Your task to perform on an android device: delete the emails in spam in the gmail app Image 0: 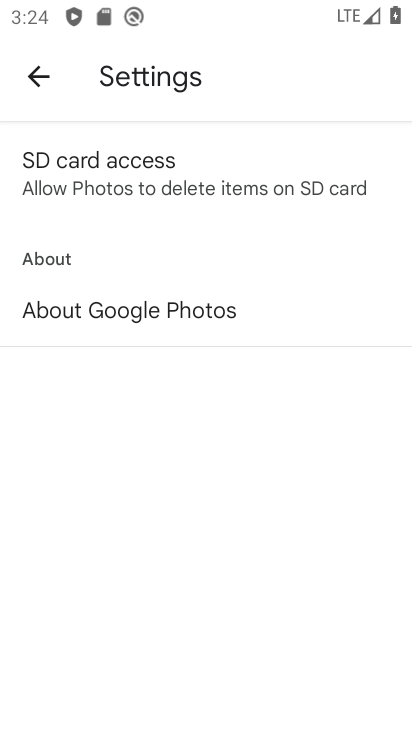
Step 0: press home button
Your task to perform on an android device: delete the emails in spam in the gmail app Image 1: 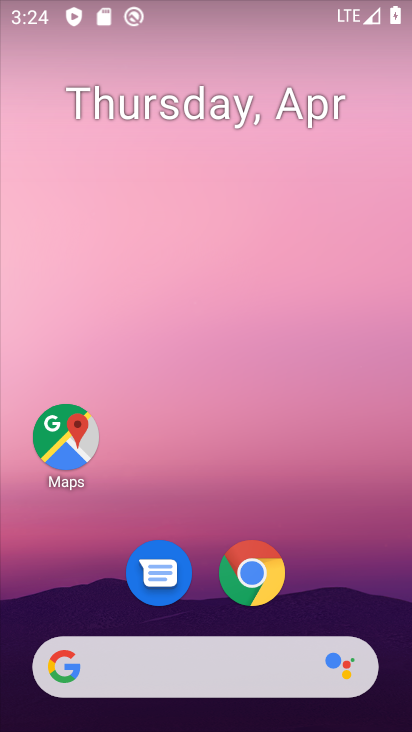
Step 1: drag from (337, 607) to (253, 116)
Your task to perform on an android device: delete the emails in spam in the gmail app Image 2: 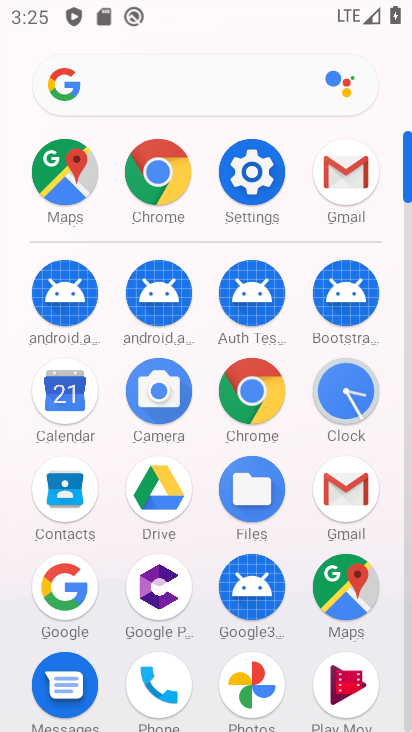
Step 2: click (341, 495)
Your task to perform on an android device: delete the emails in spam in the gmail app Image 3: 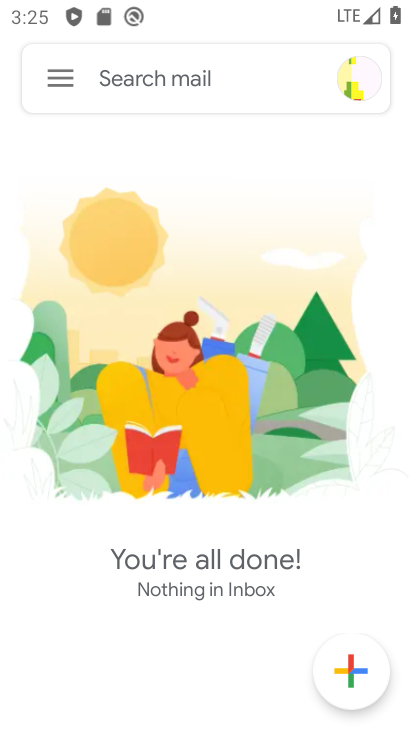
Step 3: task complete